Your task to perform on an android device: Turn off the flashlight Image 0: 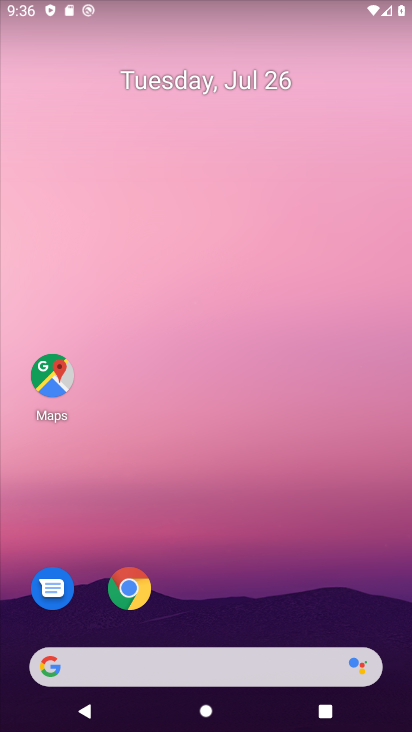
Step 0: drag from (230, 592) to (307, 0)
Your task to perform on an android device: Turn off the flashlight Image 1: 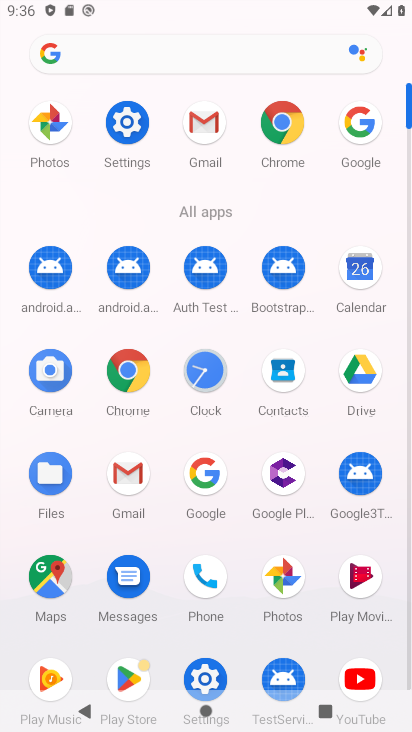
Step 1: click (127, 118)
Your task to perform on an android device: Turn off the flashlight Image 2: 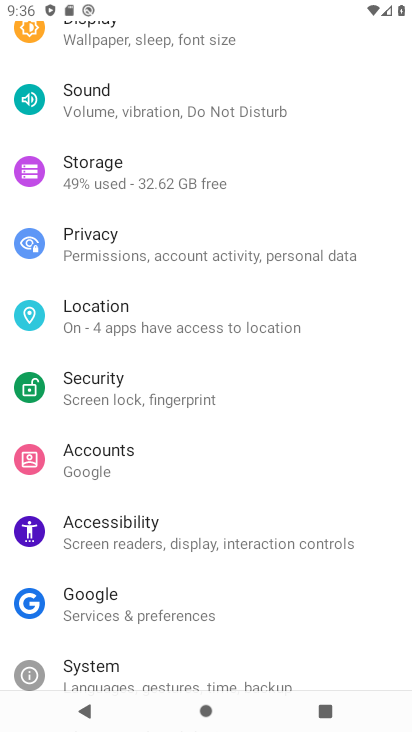
Step 2: drag from (155, 81) to (233, 721)
Your task to perform on an android device: Turn off the flashlight Image 3: 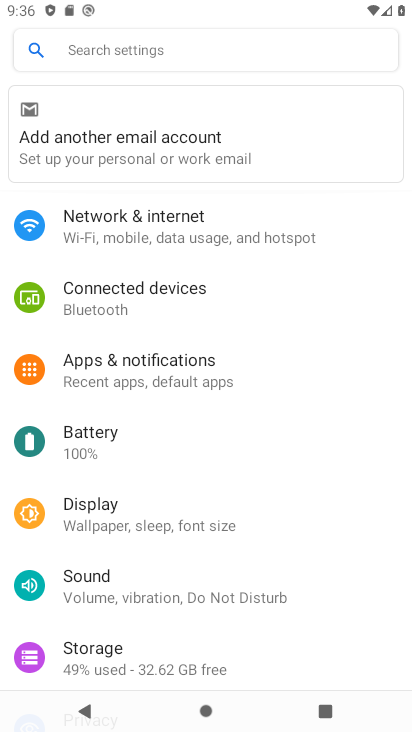
Step 3: click (182, 52)
Your task to perform on an android device: Turn off the flashlight Image 4: 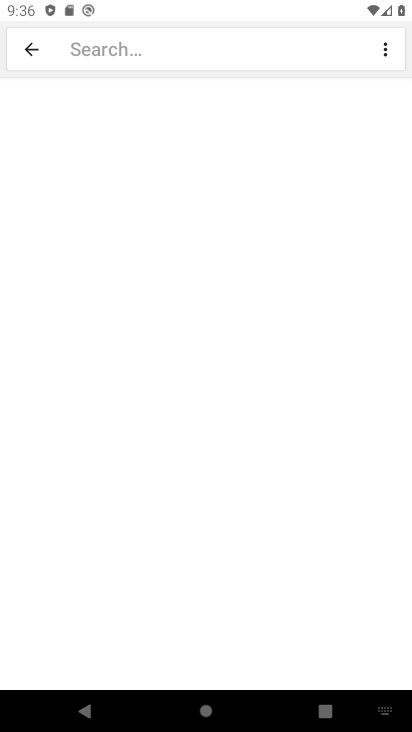
Step 4: type "flashlight"
Your task to perform on an android device: Turn off the flashlight Image 5: 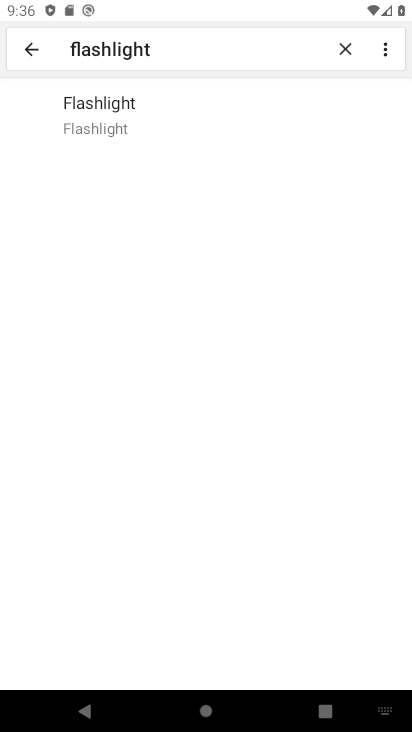
Step 5: click (92, 87)
Your task to perform on an android device: Turn off the flashlight Image 6: 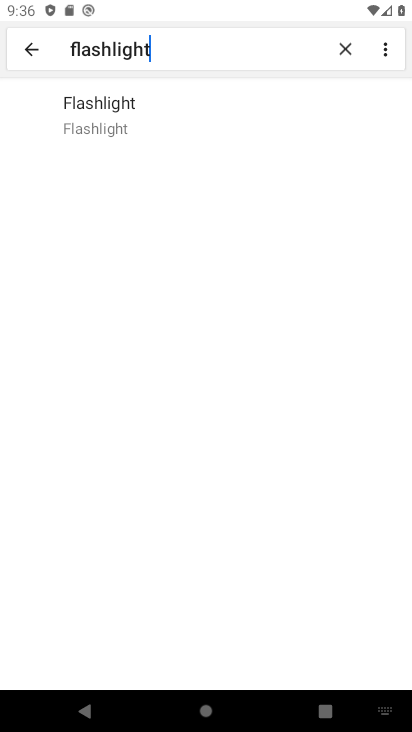
Step 6: click (111, 117)
Your task to perform on an android device: Turn off the flashlight Image 7: 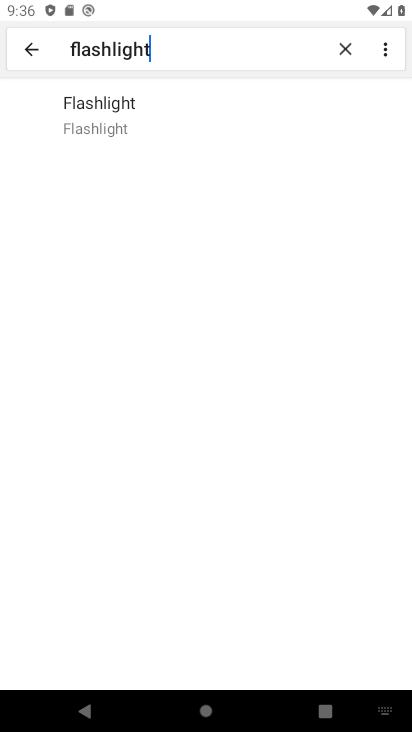
Step 7: task complete